Your task to perform on an android device: Open Google Maps and go to "Timeline" Image 0: 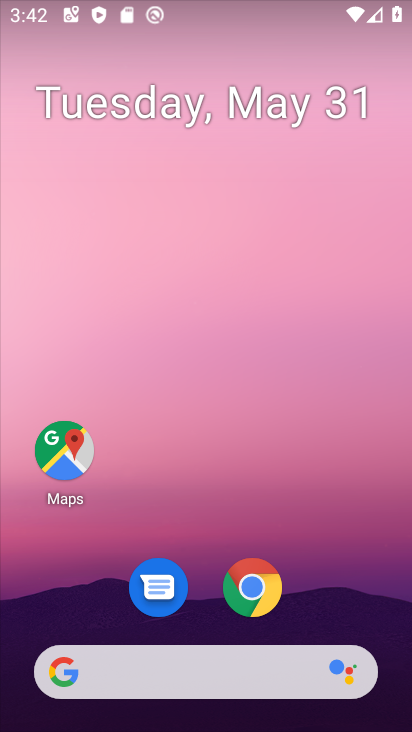
Step 0: click (67, 447)
Your task to perform on an android device: Open Google Maps and go to "Timeline" Image 1: 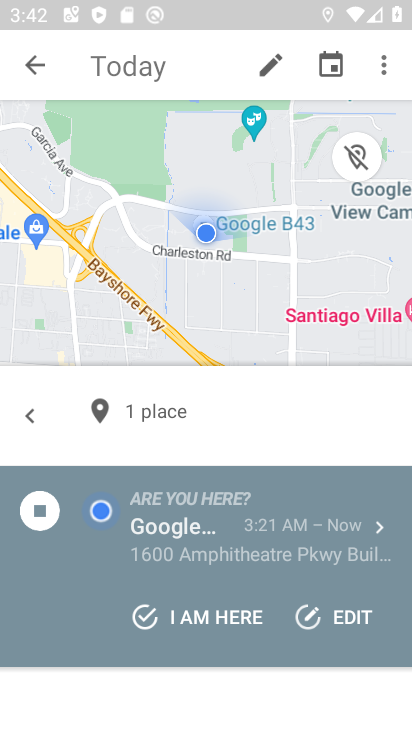
Step 1: task complete